Your task to perform on an android device: Go to eBay Image 0: 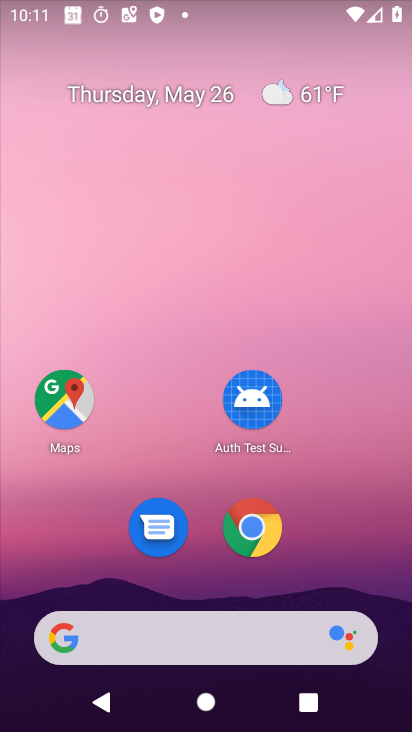
Step 0: click (243, 535)
Your task to perform on an android device: Go to eBay Image 1: 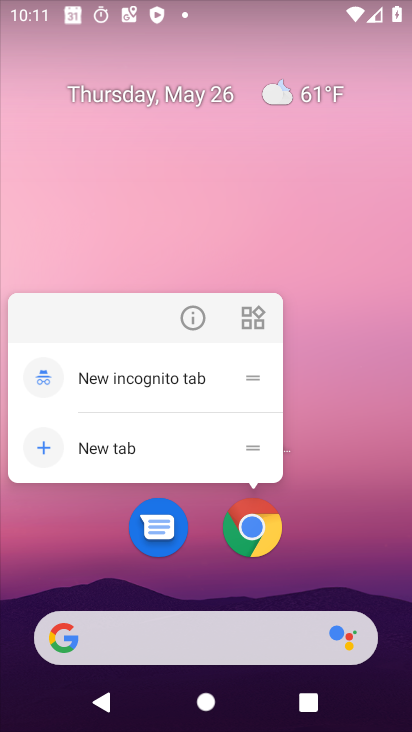
Step 1: click (244, 532)
Your task to perform on an android device: Go to eBay Image 2: 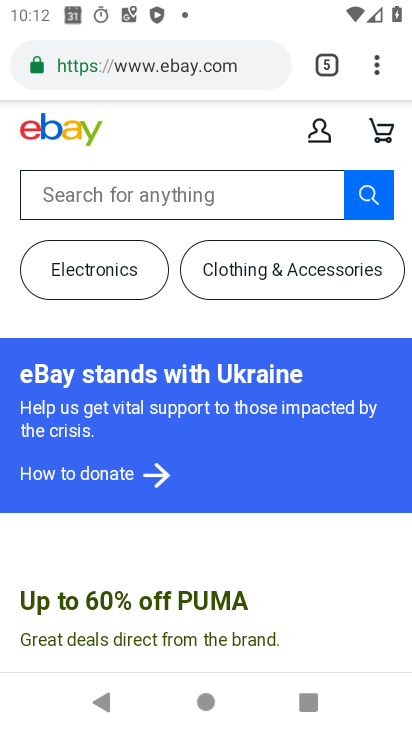
Step 2: task complete